Your task to perform on an android device: toggle show notifications on the lock screen Image 0: 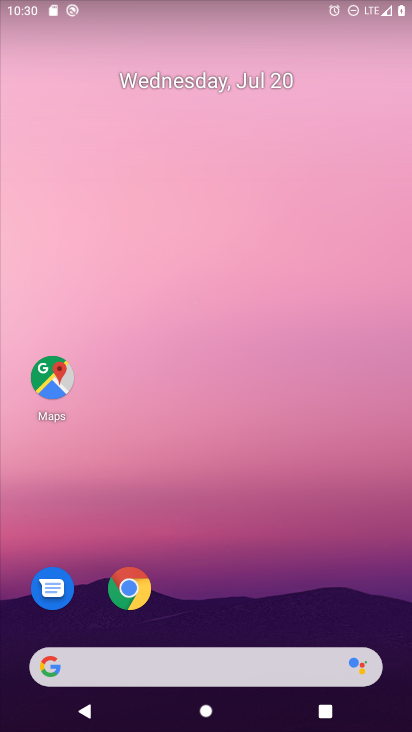
Step 0: drag from (201, 609) to (182, 136)
Your task to perform on an android device: toggle show notifications on the lock screen Image 1: 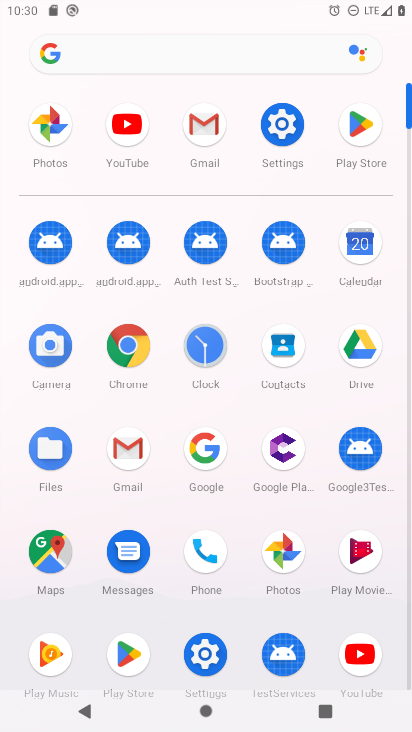
Step 1: click (278, 120)
Your task to perform on an android device: toggle show notifications on the lock screen Image 2: 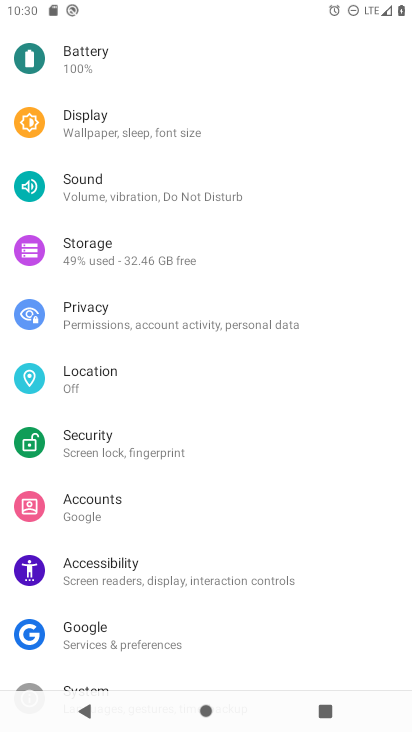
Step 2: drag from (128, 197) to (147, 712)
Your task to perform on an android device: toggle show notifications on the lock screen Image 3: 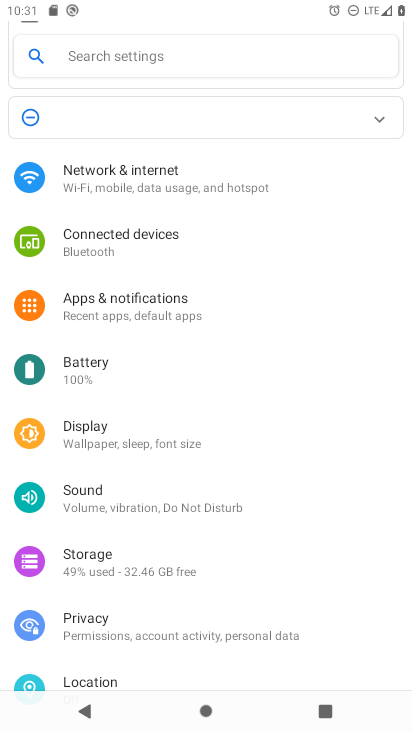
Step 3: click (176, 323)
Your task to perform on an android device: toggle show notifications on the lock screen Image 4: 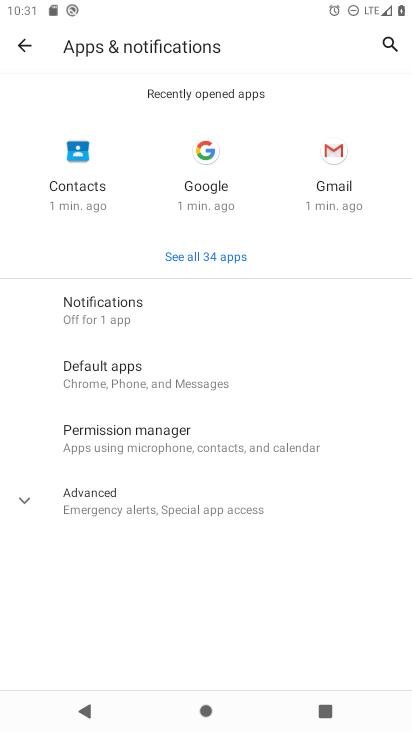
Step 4: click (150, 514)
Your task to perform on an android device: toggle show notifications on the lock screen Image 5: 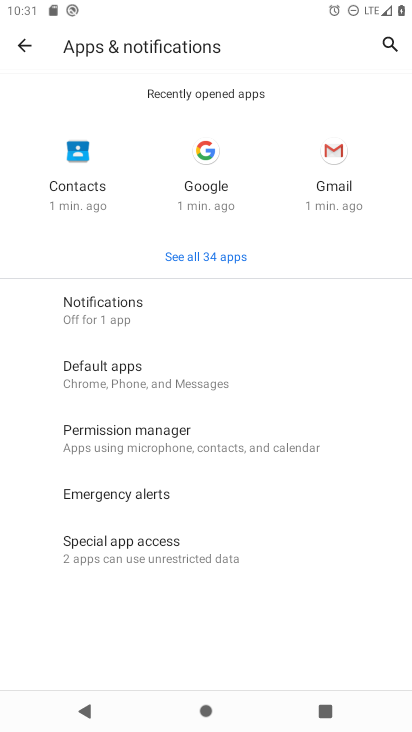
Step 5: click (124, 298)
Your task to perform on an android device: toggle show notifications on the lock screen Image 6: 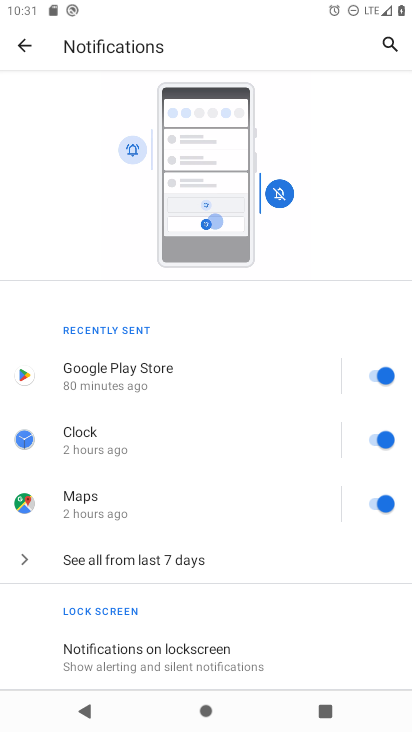
Step 6: click (199, 662)
Your task to perform on an android device: toggle show notifications on the lock screen Image 7: 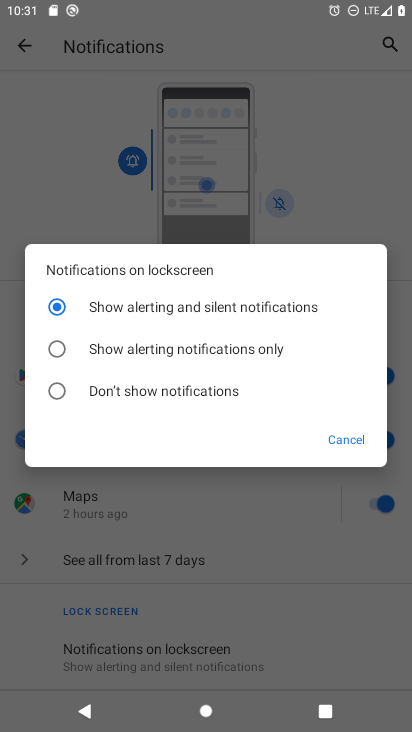
Step 7: click (238, 366)
Your task to perform on an android device: toggle show notifications on the lock screen Image 8: 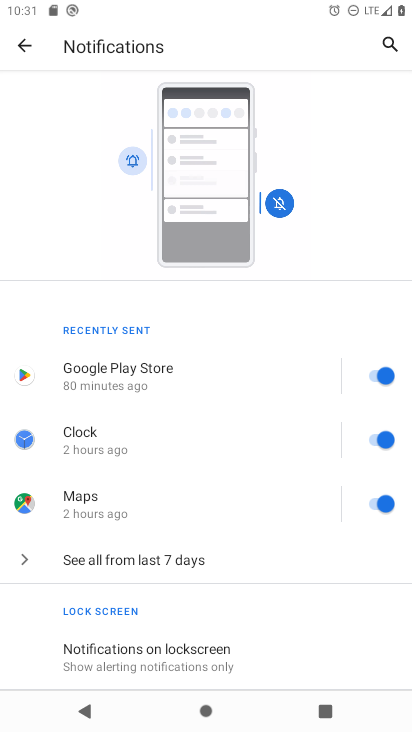
Step 8: task complete